Your task to perform on an android device: open a new tab in the chrome app Image 0: 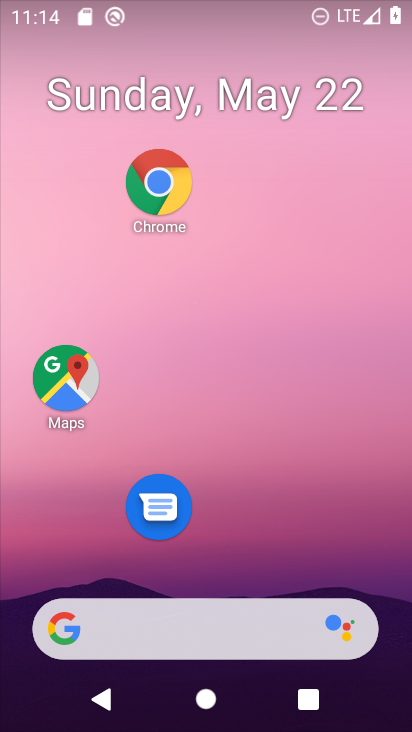
Step 0: click (161, 193)
Your task to perform on an android device: open a new tab in the chrome app Image 1: 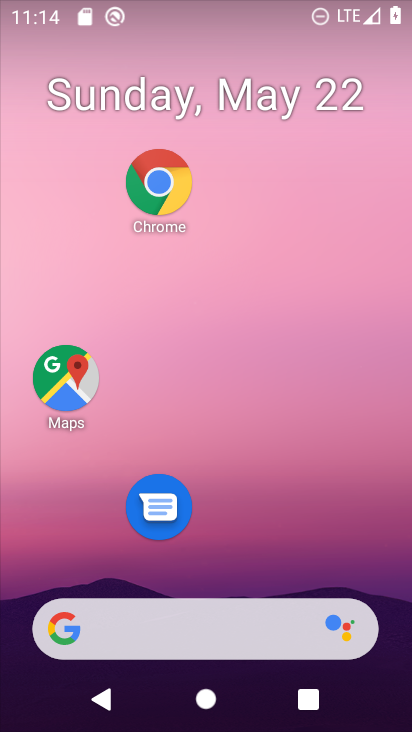
Step 1: click (161, 193)
Your task to perform on an android device: open a new tab in the chrome app Image 2: 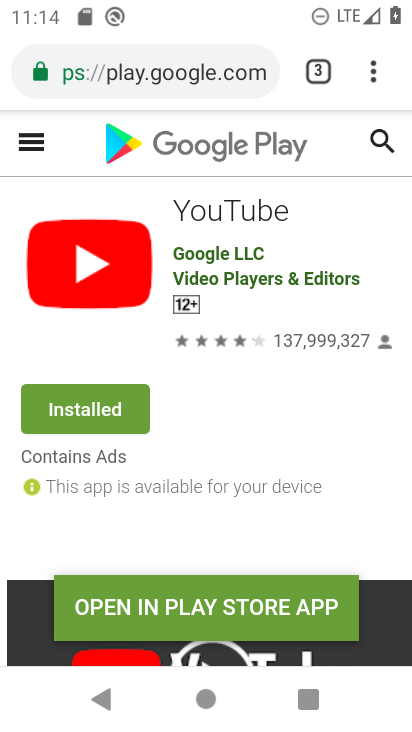
Step 2: click (372, 66)
Your task to perform on an android device: open a new tab in the chrome app Image 3: 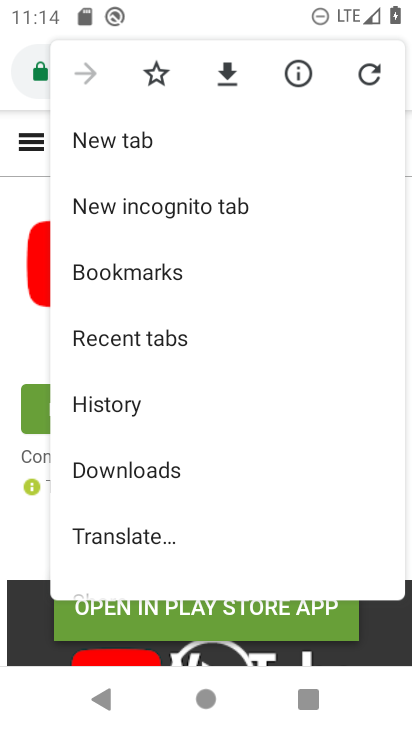
Step 3: click (203, 147)
Your task to perform on an android device: open a new tab in the chrome app Image 4: 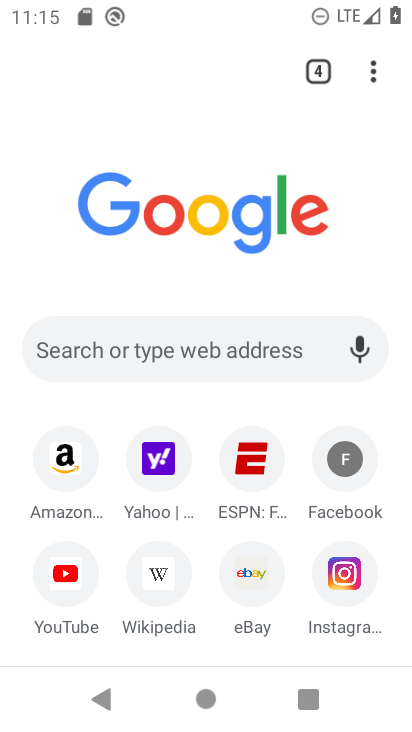
Step 4: task complete